Your task to perform on an android device: star an email in the gmail app Image 0: 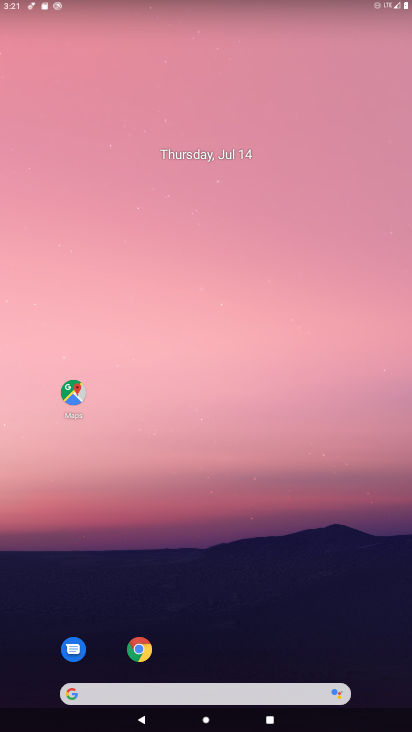
Step 0: drag from (145, 614) to (180, 276)
Your task to perform on an android device: star an email in the gmail app Image 1: 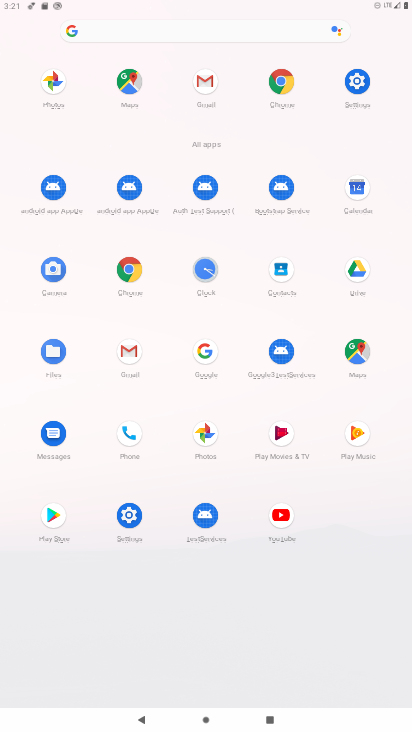
Step 1: click (203, 80)
Your task to perform on an android device: star an email in the gmail app Image 2: 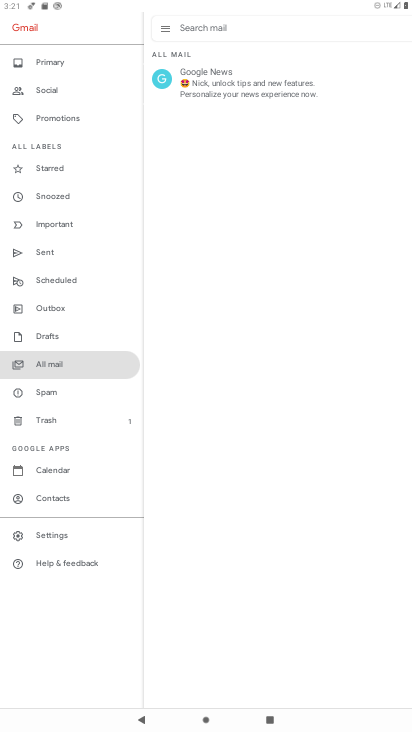
Step 2: click (58, 170)
Your task to perform on an android device: star an email in the gmail app Image 3: 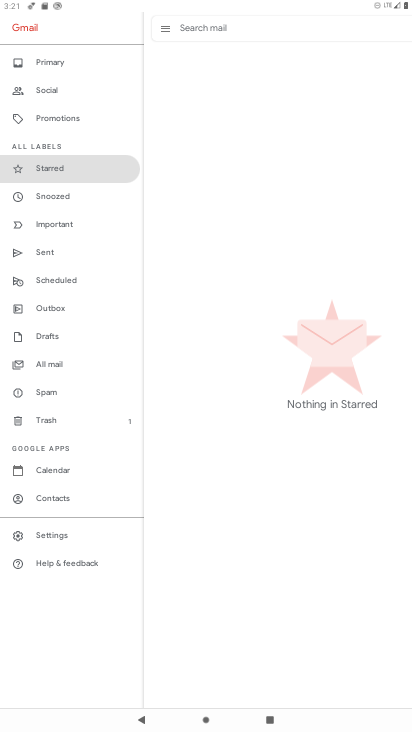
Step 3: click (56, 361)
Your task to perform on an android device: star an email in the gmail app Image 4: 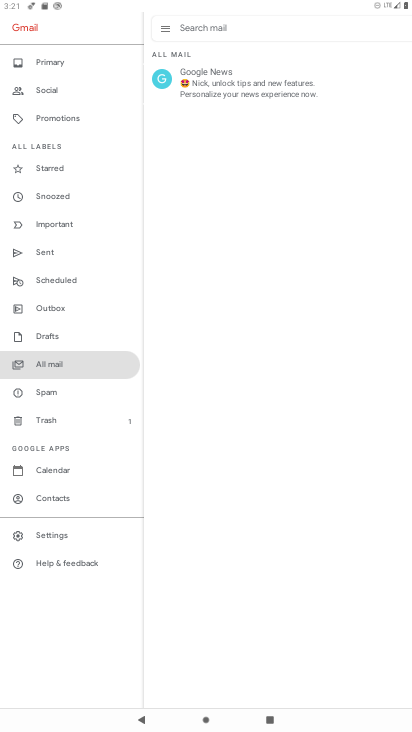
Step 4: click (274, 73)
Your task to perform on an android device: star an email in the gmail app Image 5: 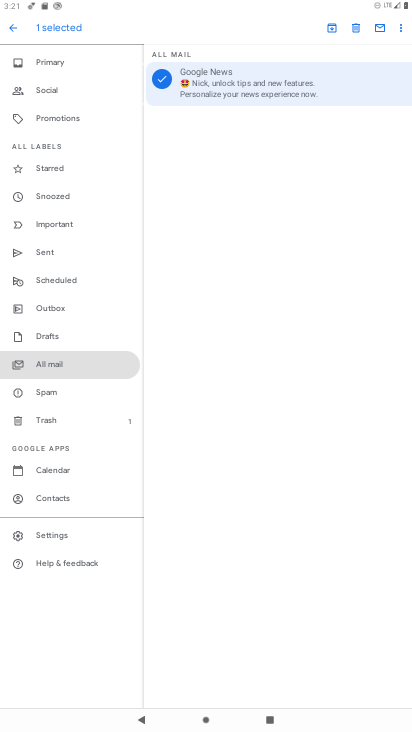
Step 5: click (377, 80)
Your task to perform on an android device: star an email in the gmail app Image 6: 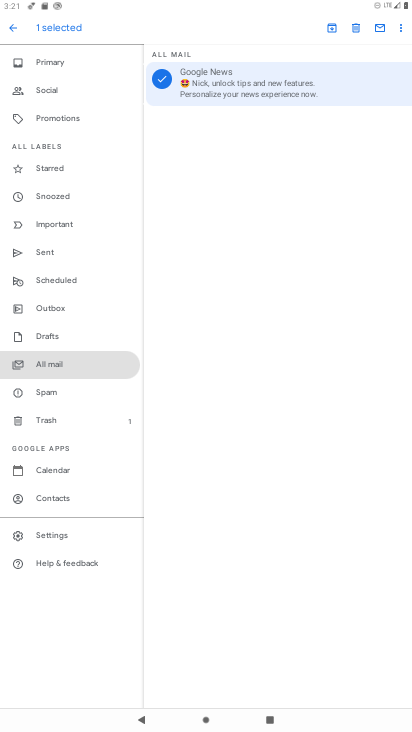
Step 6: drag from (377, 80) to (411, 88)
Your task to perform on an android device: star an email in the gmail app Image 7: 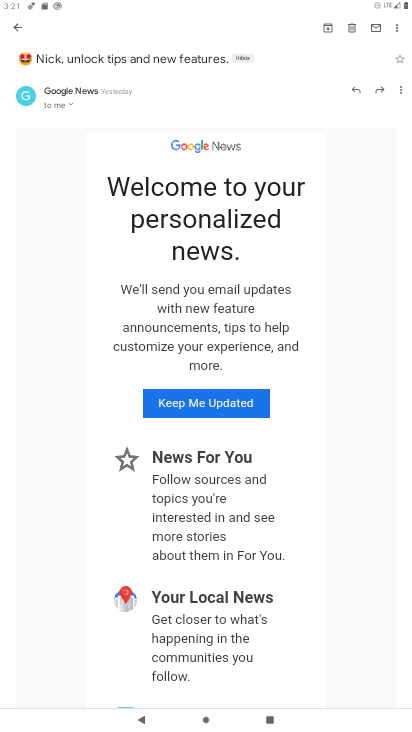
Step 7: click (407, 54)
Your task to perform on an android device: star an email in the gmail app Image 8: 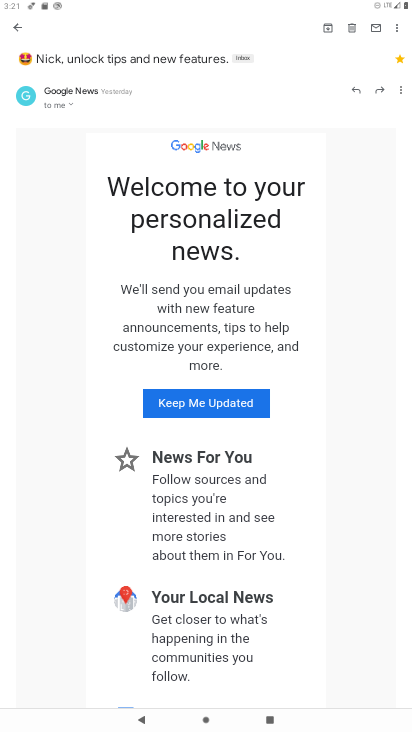
Step 8: task complete